Your task to perform on an android device: open chrome and create a bookmark for the current page Image 0: 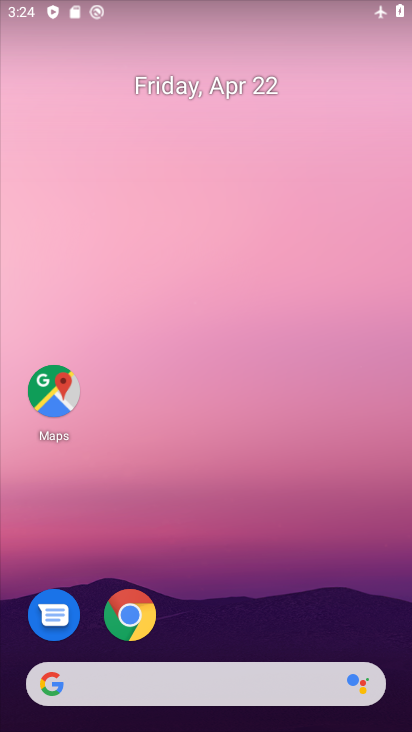
Step 0: click (134, 614)
Your task to perform on an android device: open chrome and create a bookmark for the current page Image 1: 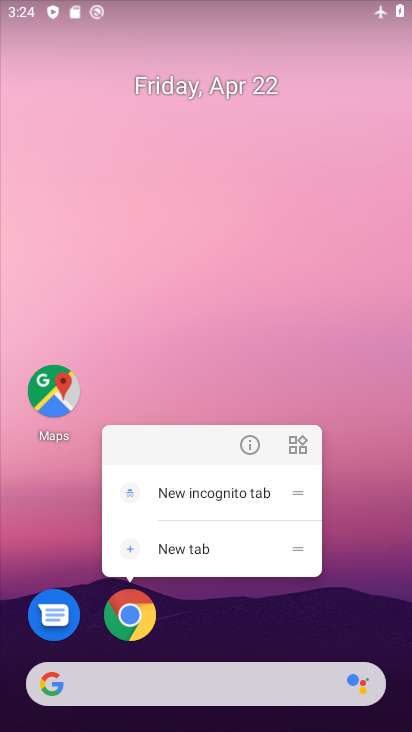
Step 1: click (134, 613)
Your task to perform on an android device: open chrome and create a bookmark for the current page Image 2: 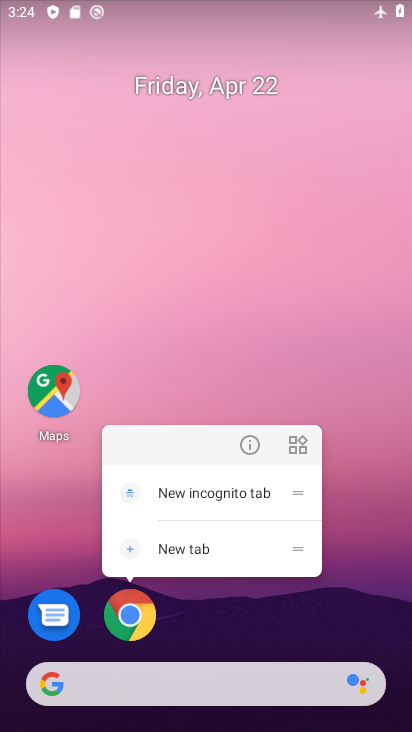
Step 2: click (126, 617)
Your task to perform on an android device: open chrome and create a bookmark for the current page Image 3: 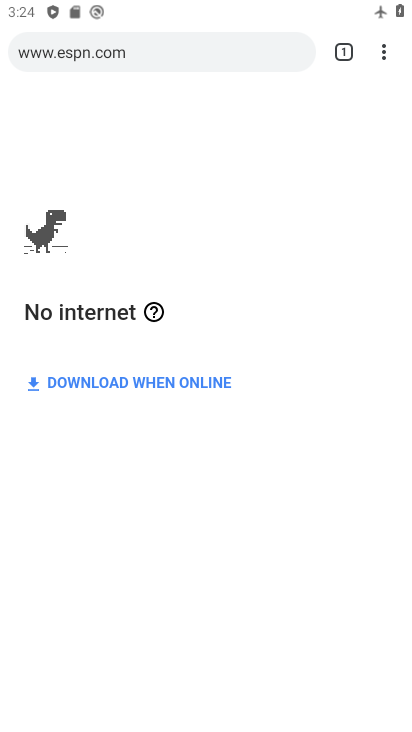
Step 3: click (386, 47)
Your task to perform on an android device: open chrome and create a bookmark for the current page Image 4: 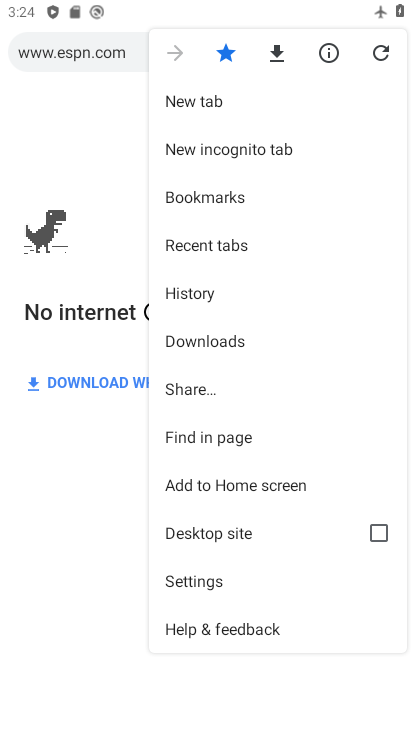
Step 4: click (232, 55)
Your task to perform on an android device: open chrome and create a bookmark for the current page Image 5: 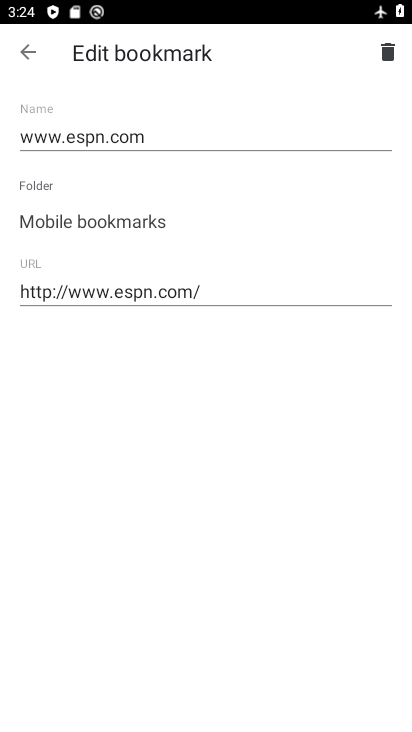
Step 5: click (385, 56)
Your task to perform on an android device: open chrome and create a bookmark for the current page Image 6: 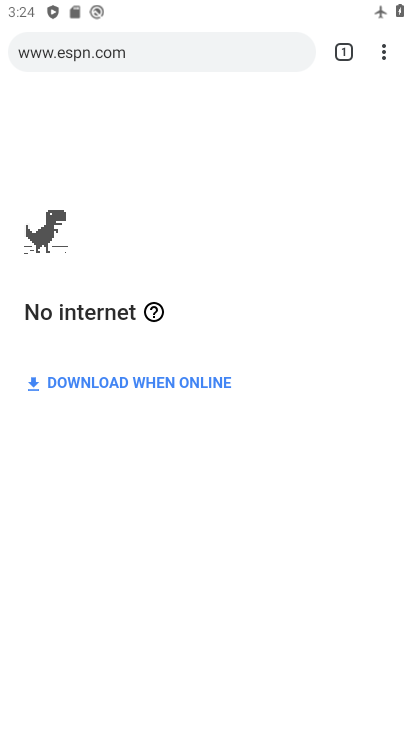
Step 6: click (378, 53)
Your task to perform on an android device: open chrome and create a bookmark for the current page Image 7: 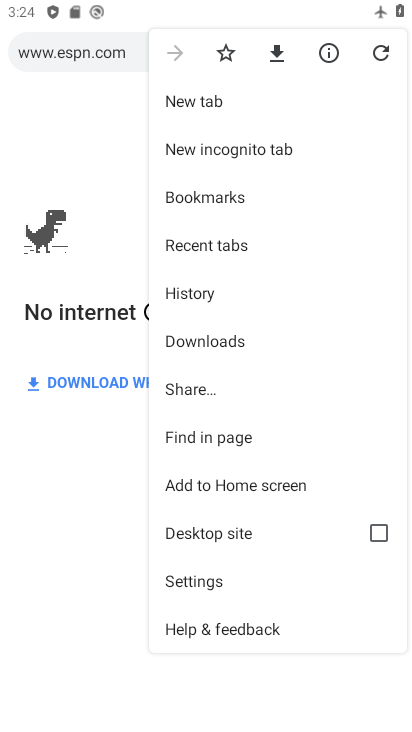
Step 7: click (225, 55)
Your task to perform on an android device: open chrome and create a bookmark for the current page Image 8: 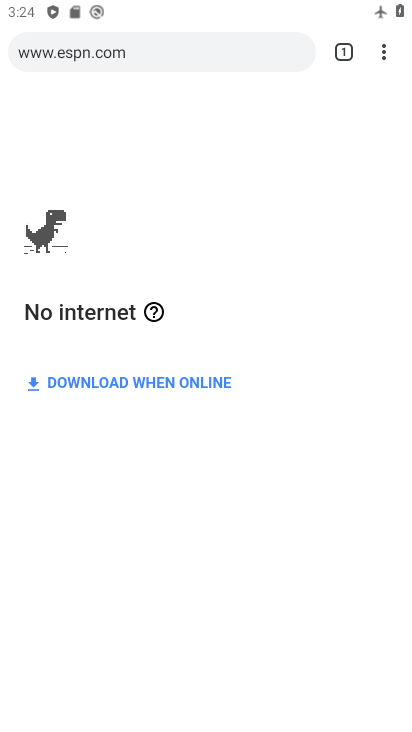
Step 8: task complete